Your task to perform on an android device: Go to Google Image 0: 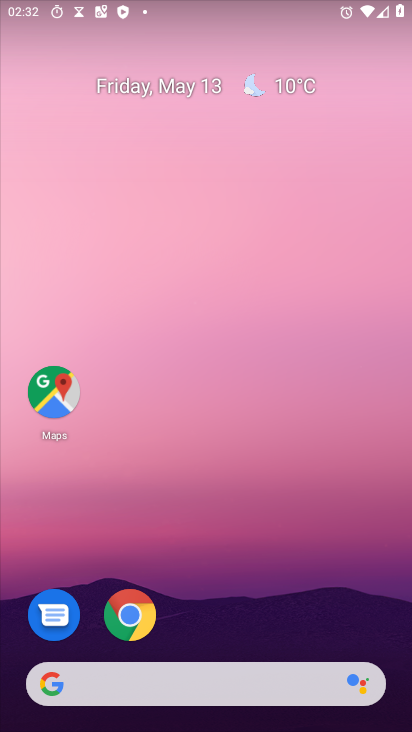
Step 0: drag from (269, 639) to (134, 56)
Your task to perform on an android device: Go to Google Image 1: 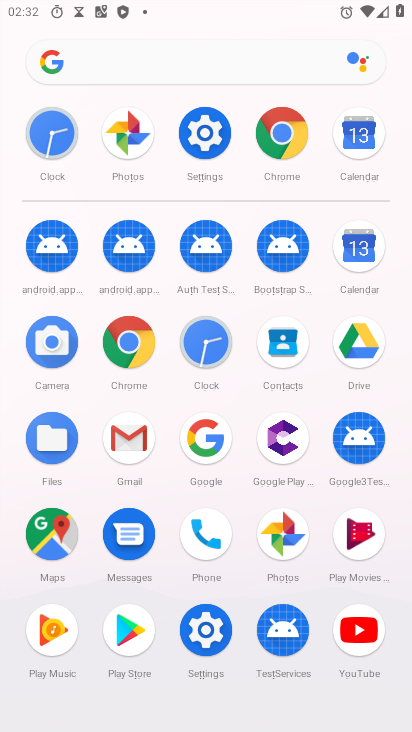
Step 1: click (220, 431)
Your task to perform on an android device: Go to Google Image 2: 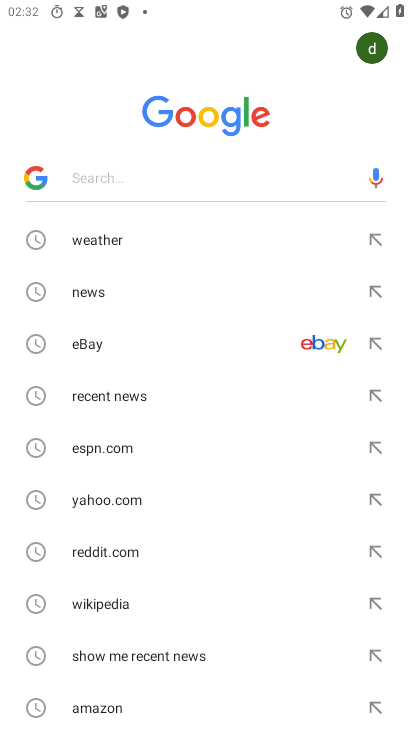
Step 2: task complete